Your task to perform on an android device: Open notification settings Image 0: 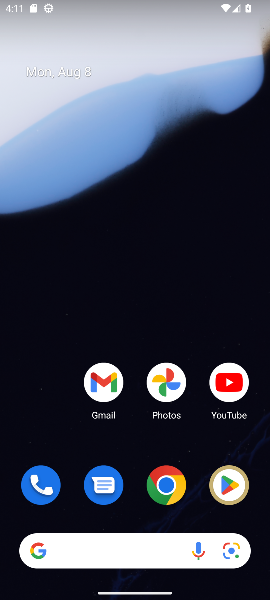
Step 0: click (198, 336)
Your task to perform on an android device: Open notification settings Image 1: 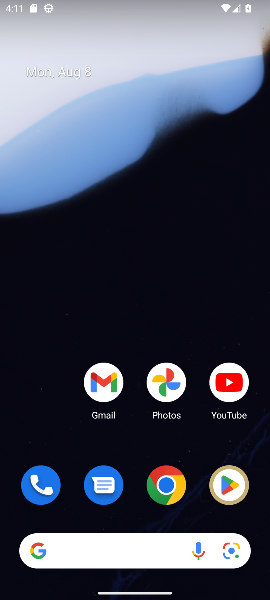
Step 1: click (94, 191)
Your task to perform on an android device: Open notification settings Image 2: 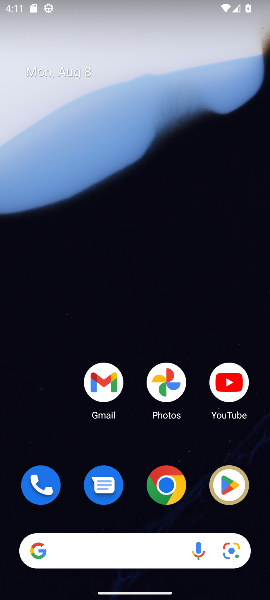
Step 2: drag from (124, 464) to (120, 226)
Your task to perform on an android device: Open notification settings Image 3: 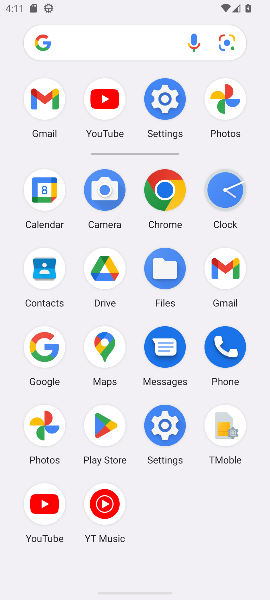
Step 3: drag from (142, 478) to (184, 126)
Your task to perform on an android device: Open notification settings Image 4: 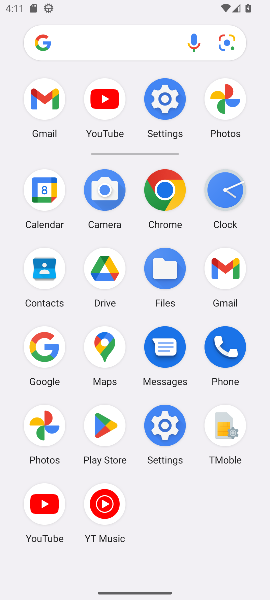
Step 4: click (165, 415)
Your task to perform on an android device: Open notification settings Image 5: 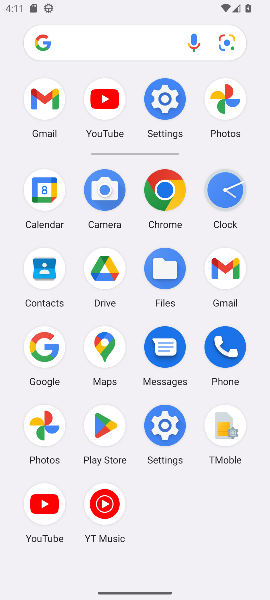
Step 5: click (167, 418)
Your task to perform on an android device: Open notification settings Image 6: 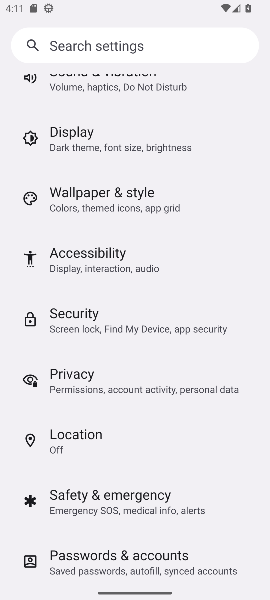
Step 6: task complete